Your task to perform on an android device: add a contact in the contacts app Image 0: 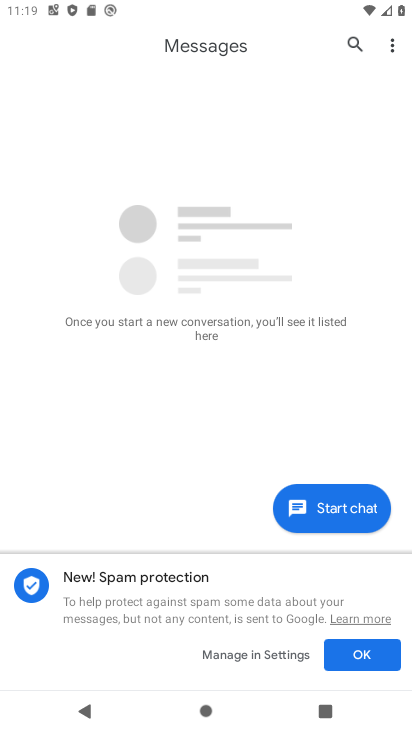
Step 0: click (316, 614)
Your task to perform on an android device: add a contact in the contacts app Image 1: 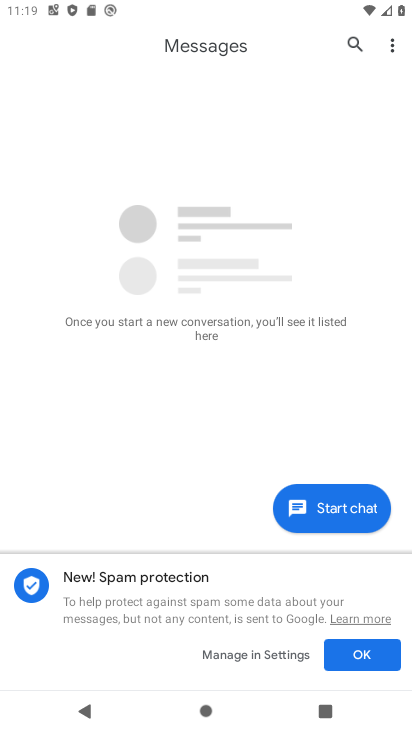
Step 1: press home button
Your task to perform on an android device: add a contact in the contacts app Image 2: 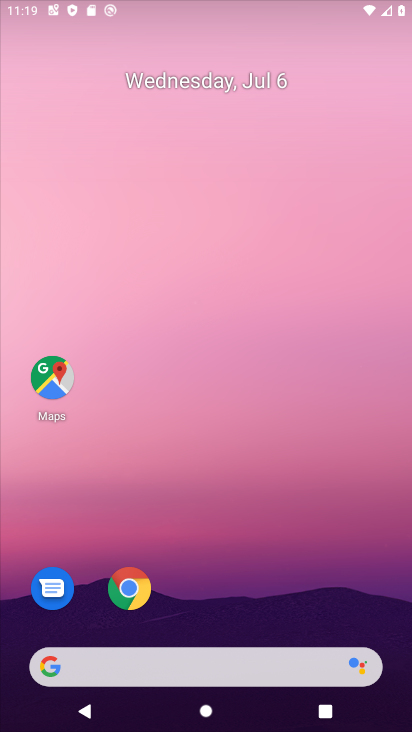
Step 2: drag from (228, 581) to (240, 214)
Your task to perform on an android device: add a contact in the contacts app Image 3: 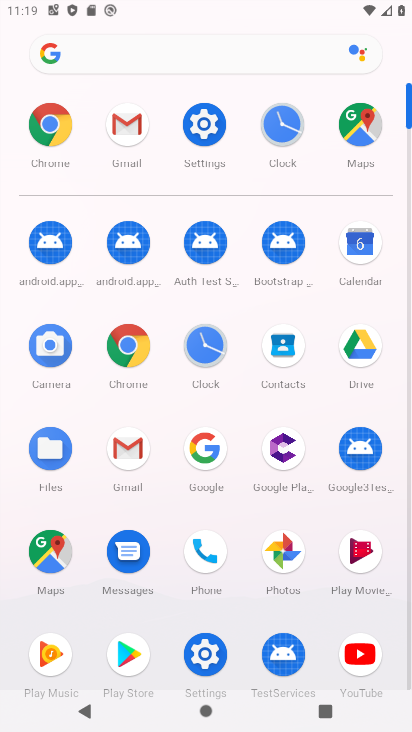
Step 3: click (209, 553)
Your task to perform on an android device: add a contact in the contacts app Image 4: 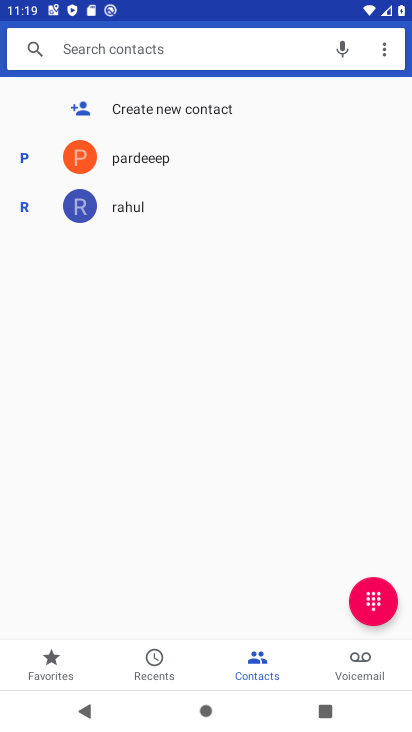
Step 4: click (168, 104)
Your task to perform on an android device: add a contact in the contacts app Image 5: 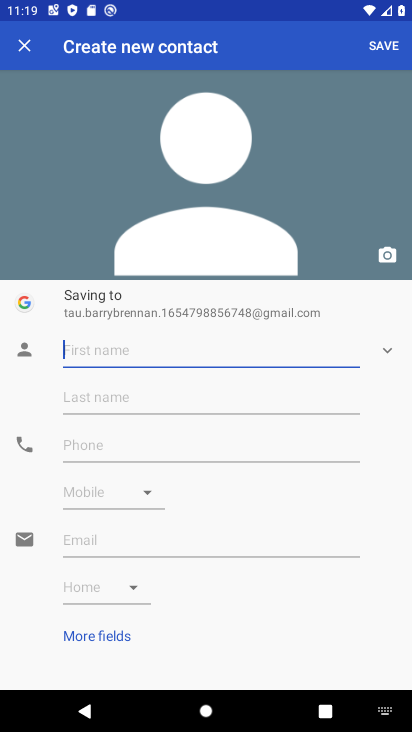
Step 5: click (189, 345)
Your task to perform on an android device: add a contact in the contacts app Image 6: 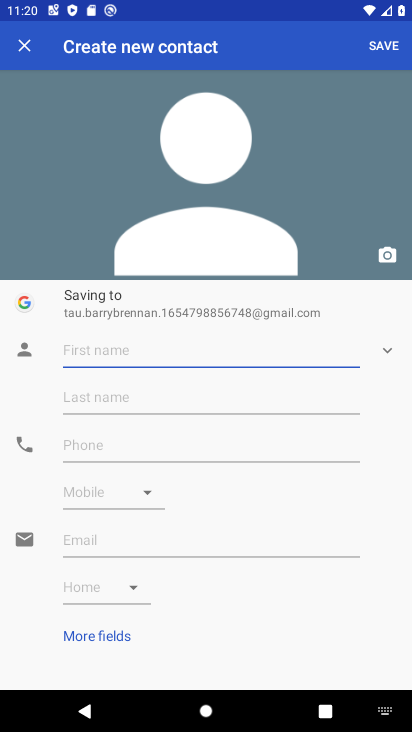
Step 6: type "sangeeta sehrawat "
Your task to perform on an android device: add a contact in the contacts app Image 7: 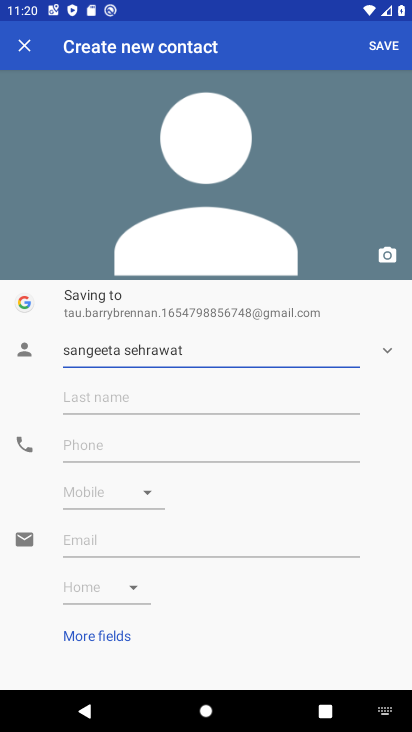
Step 7: click (133, 440)
Your task to perform on an android device: add a contact in the contacts app Image 8: 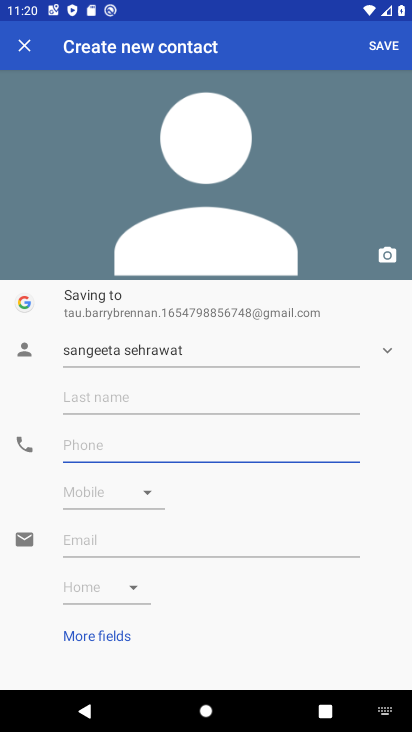
Step 8: type "0987654321 "
Your task to perform on an android device: add a contact in the contacts app Image 9: 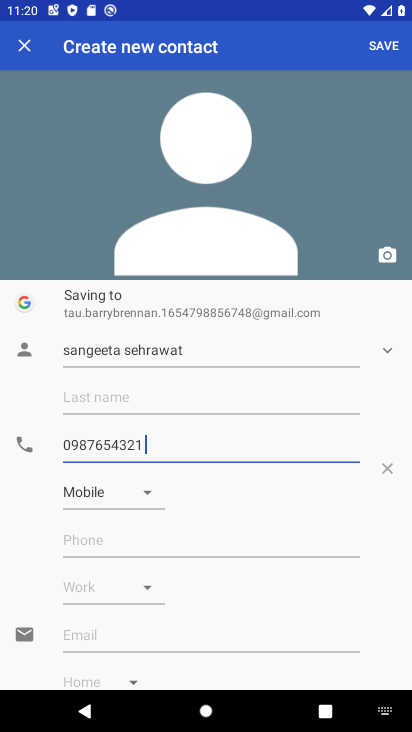
Step 9: click (397, 35)
Your task to perform on an android device: add a contact in the contacts app Image 10: 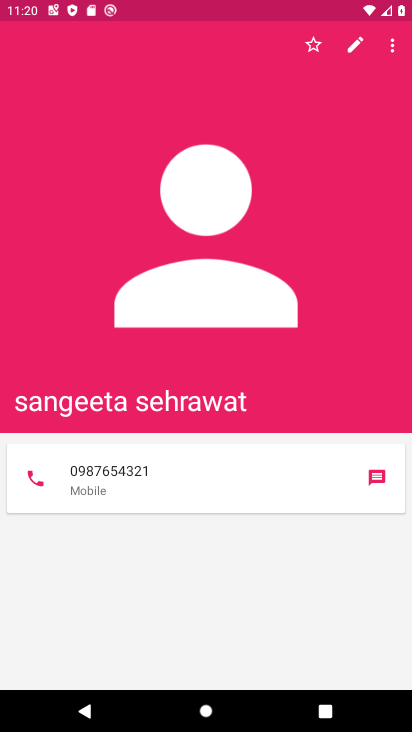
Step 10: task complete